Your task to perform on an android device: Open internet settings Image 0: 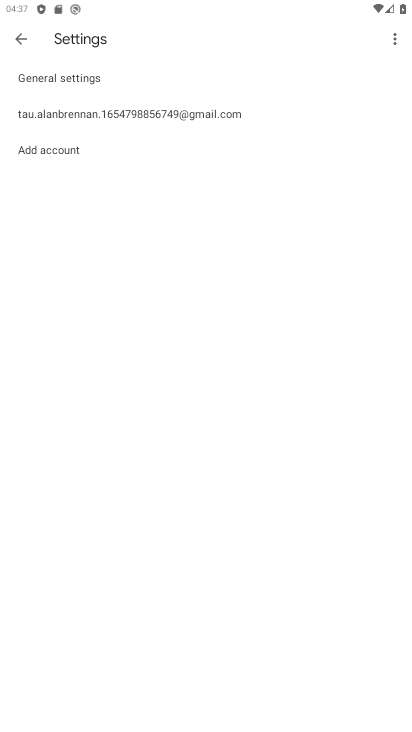
Step 0: press home button
Your task to perform on an android device: Open internet settings Image 1: 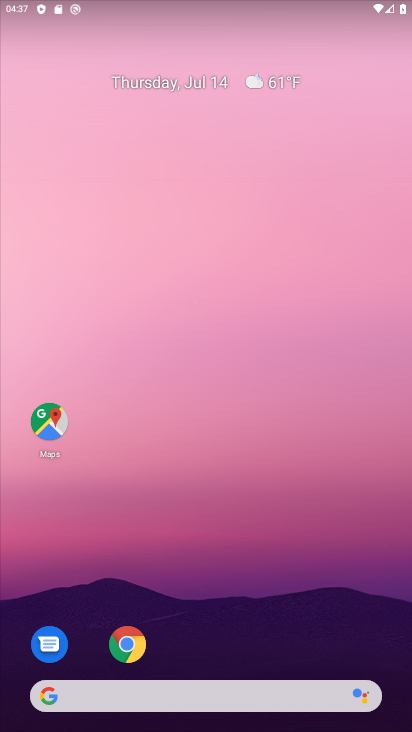
Step 1: drag from (264, 640) to (276, 11)
Your task to perform on an android device: Open internet settings Image 2: 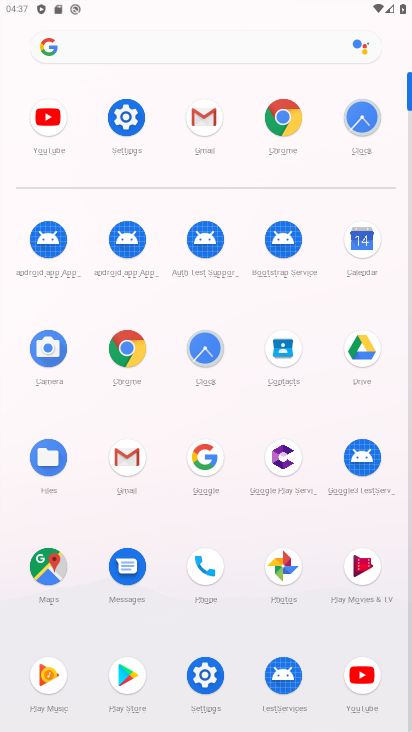
Step 2: click (214, 678)
Your task to perform on an android device: Open internet settings Image 3: 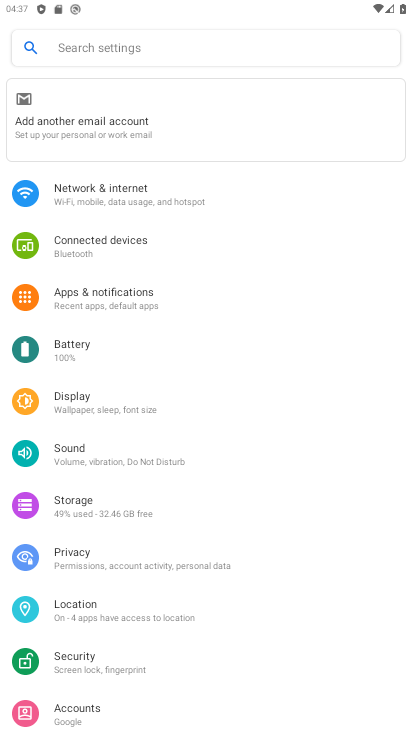
Step 3: click (128, 210)
Your task to perform on an android device: Open internet settings Image 4: 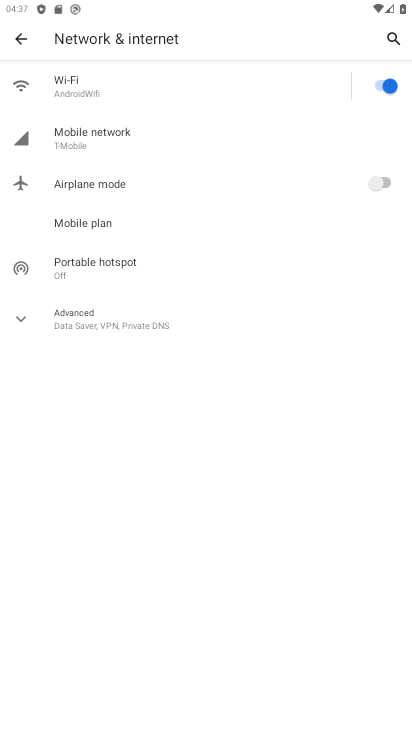
Step 4: task complete